Your task to perform on an android device: empty trash in the gmail app Image 0: 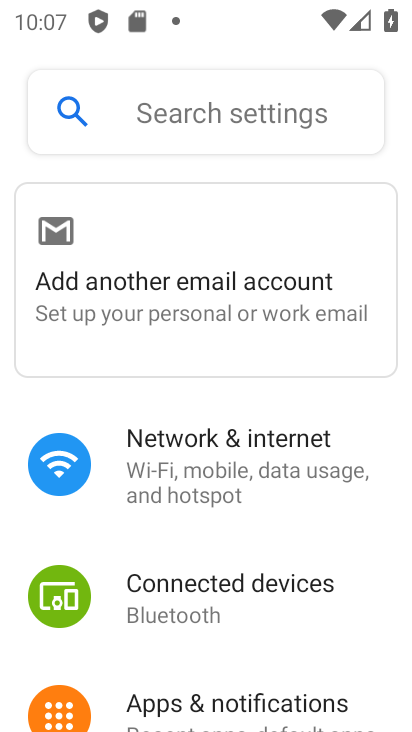
Step 0: press home button
Your task to perform on an android device: empty trash in the gmail app Image 1: 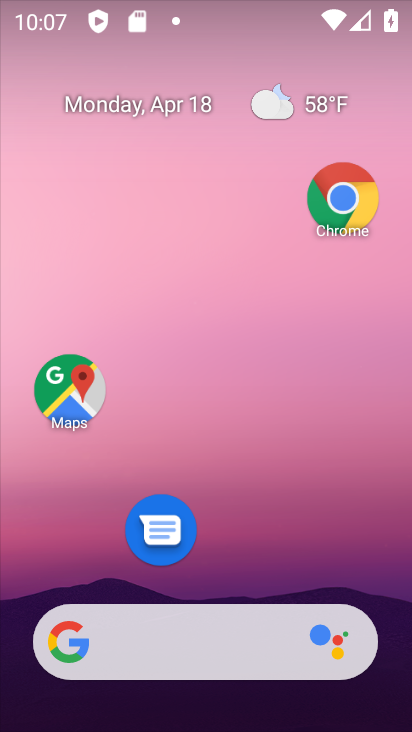
Step 1: drag from (98, 542) to (152, 238)
Your task to perform on an android device: empty trash in the gmail app Image 2: 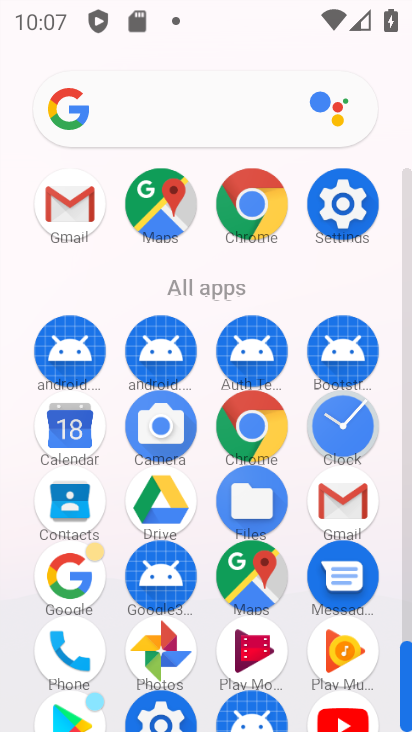
Step 2: click (337, 504)
Your task to perform on an android device: empty trash in the gmail app Image 3: 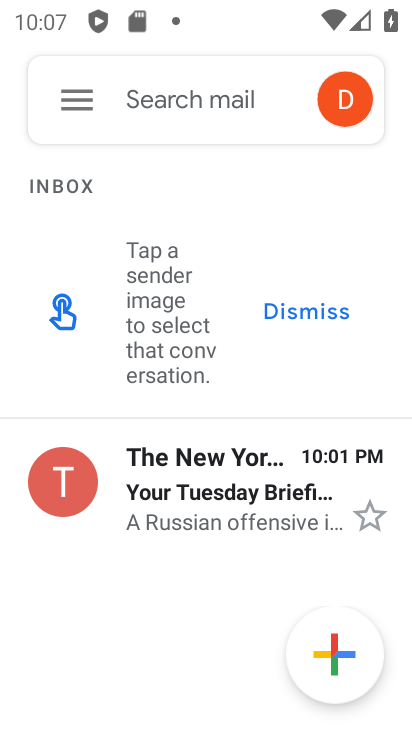
Step 3: click (76, 105)
Your task to perform on an android device: empty trash in the gmail app Image 4: 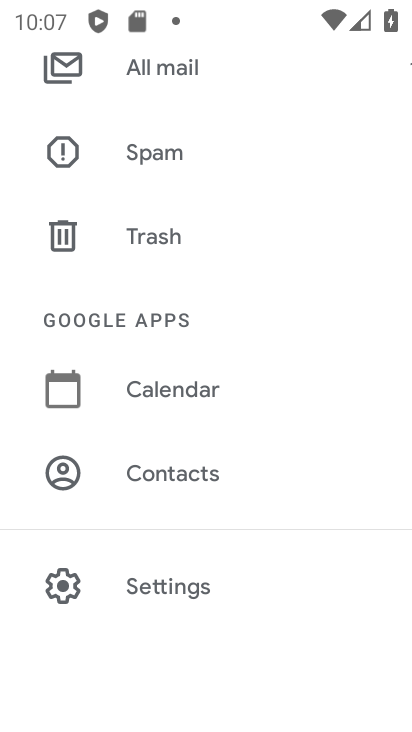
Step 4: click (115, 255)
Your task to perform on an android device: empty trash in the gmail app Image 5: 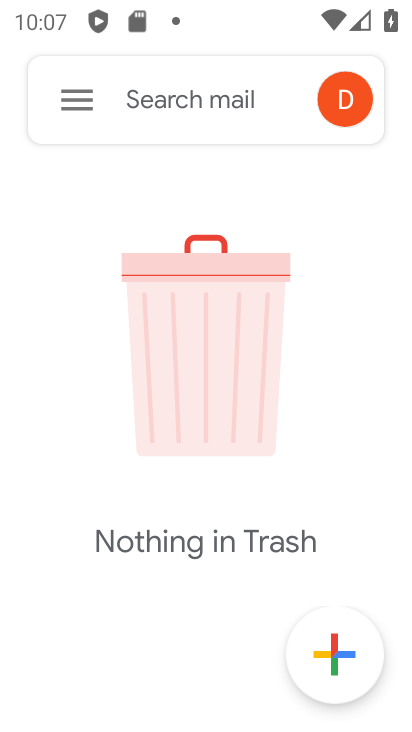
Step 5: task complete